Your task to perform on an android device: turn off priority inbox in the gmail app Image 0: 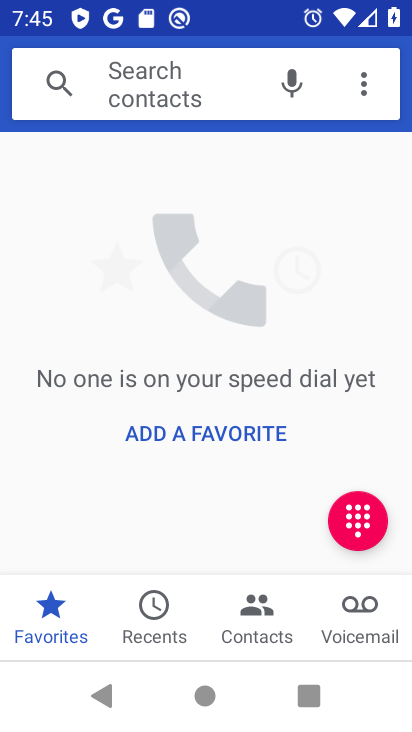
Step 0: press home button
Your task to perform on an android device: turn off priority inbox in the gmail app Image 1: 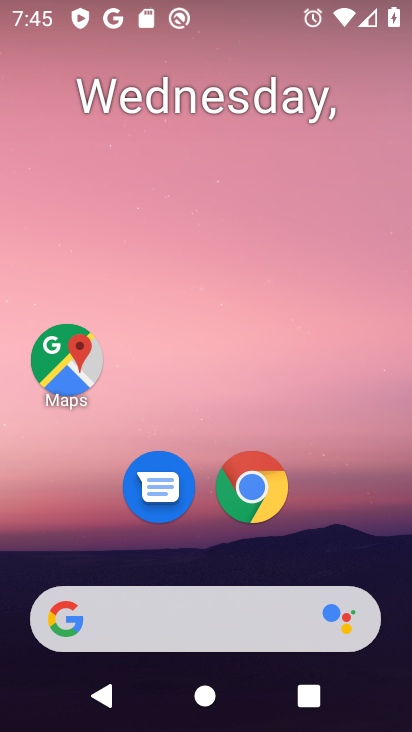
Step 1: drag from (234, 606) to (238, 271)
Your task to perform on an android device: turn off priority inbox in the gmail app Image 2: 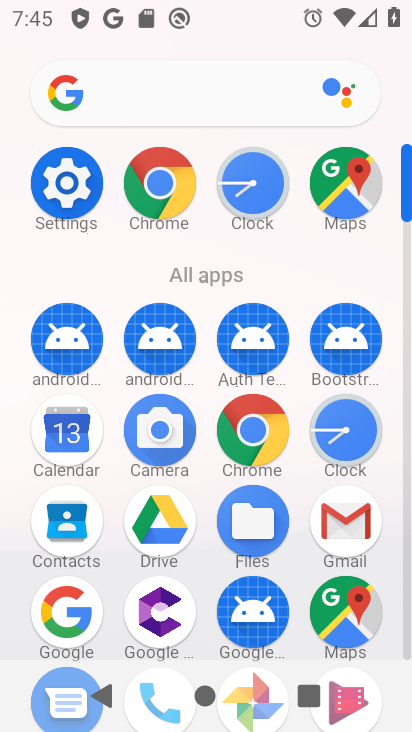
Step 2: click (359, 532)
Your task to perform on an android device: turn off priority inbox in the gmail app Image 3: 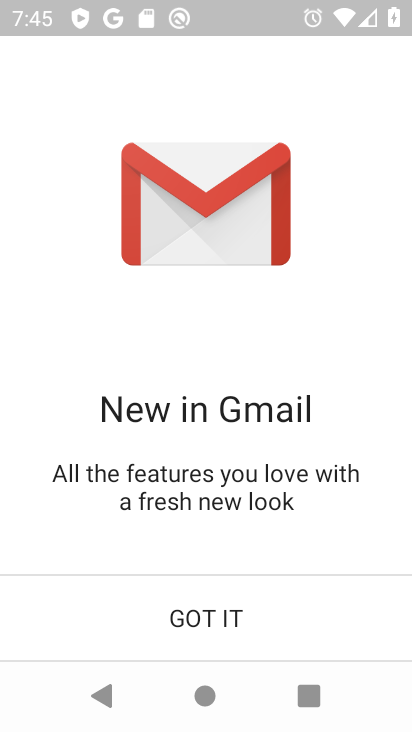
Step 3: click (334, 608)
Your task to perform on an android device: turn off priority inbox in the gmail app Image 4: 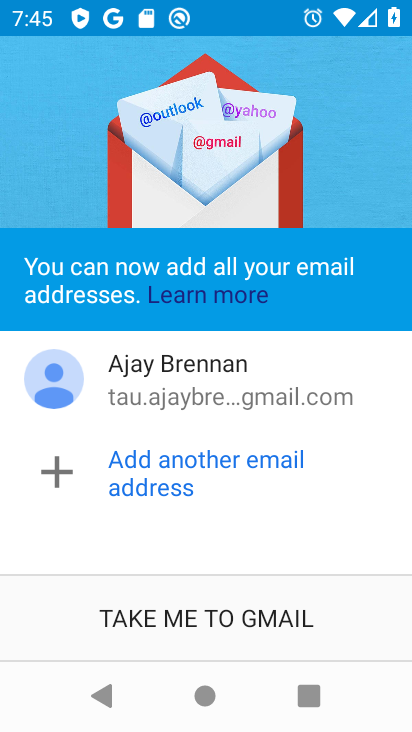
Step 4: click (334, 611)
Your task to perform on an android device: turn off priority inbox in the gmail app Image 5: 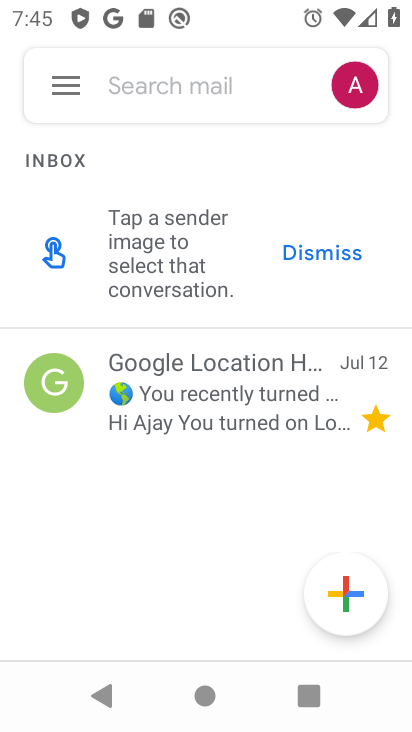
Step 5: click (67, 102)
Your task to perform on an android device: turn off priority inbox in the gmail app Image 6: 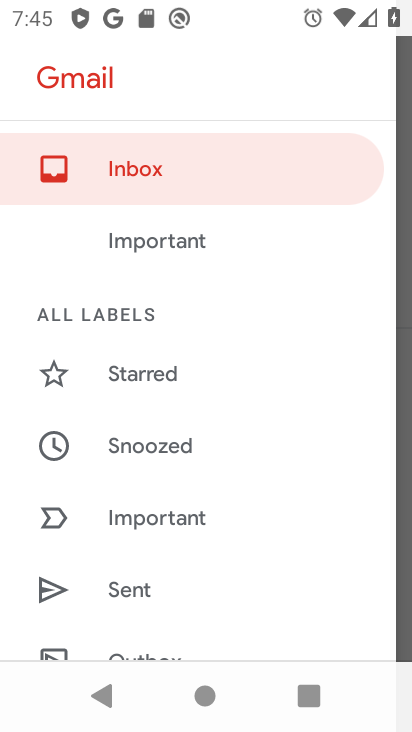
Step 6: drag from (202, 471) to (225, 117)
Your task to perform on an android device: turn off priority inbox in the gmail app Image 7: 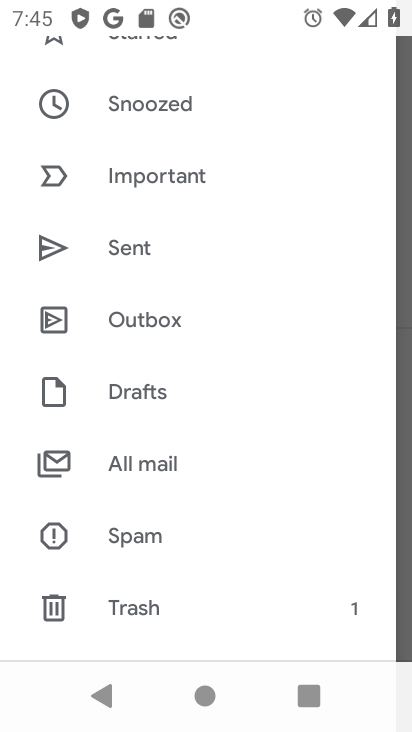
Step 7: drag from (199, 549) to (189, 9)
Your task to perform on an android device: turn off priority inbox in the gmail app Image 8: 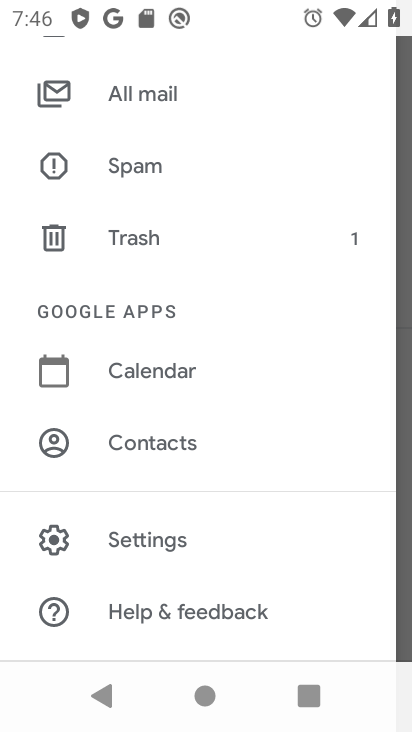
Step 8: click (174, 549)
Your task to perform on an android device: turn off priority inbox in the gmail app Image 9: 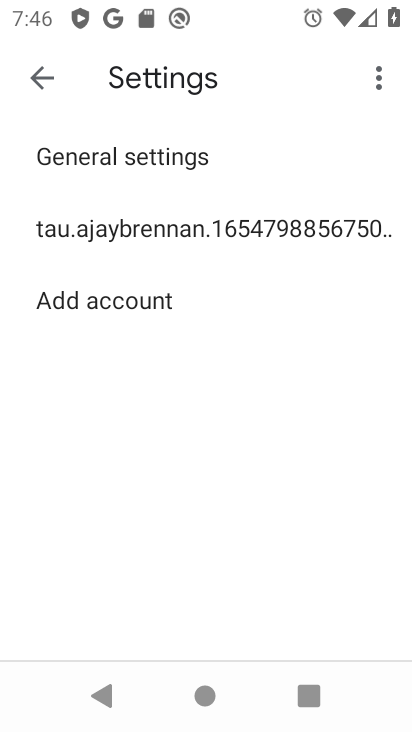
Step 9: click (145, 236)
Your task to perform on an android device: turn off priority inbox in the gmail app Image 10: 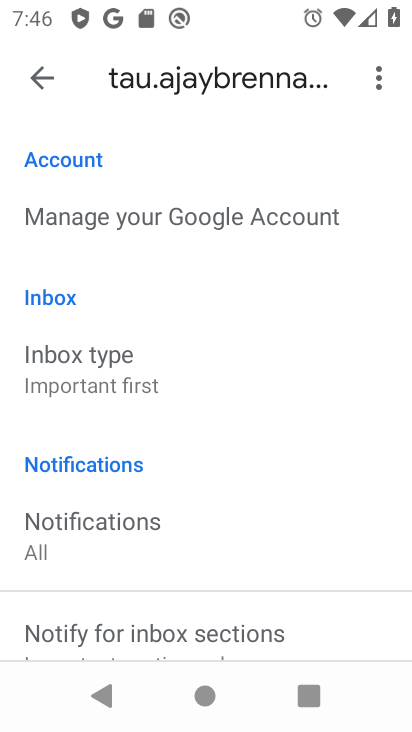
Step 10: click (154, 377)
Your task to perform on an android device: turn off priority inbox in the gmail app Image 11: 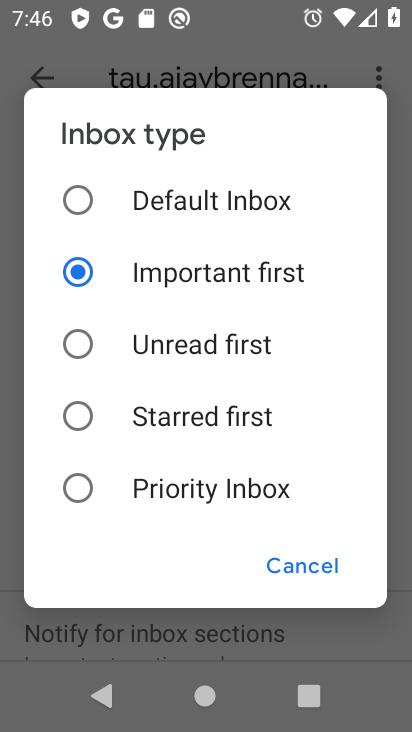
Step 11: task complete